Your task to perform on an android device: Open privacy settings Image 0: 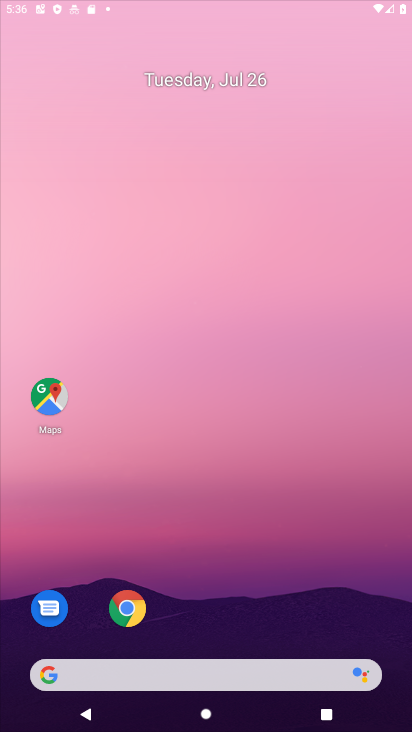
Step 0: press home button
Your task to perform on an android device: Open privacy settings Image 1: 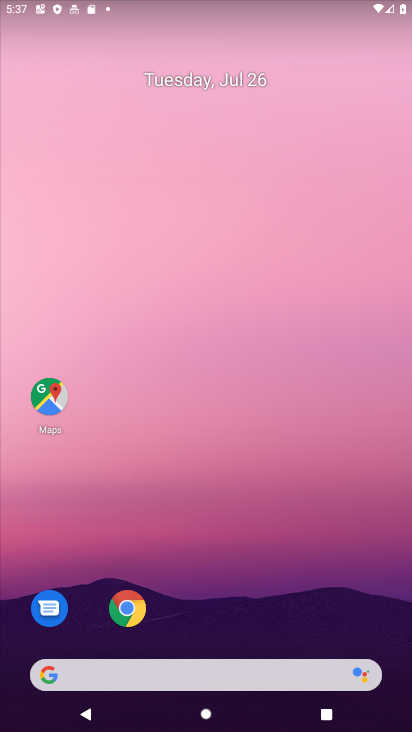
Step 1: drag from (279, 638) to (230, 77)
Your task to perform on an android device: Open privacy settings Image 2: 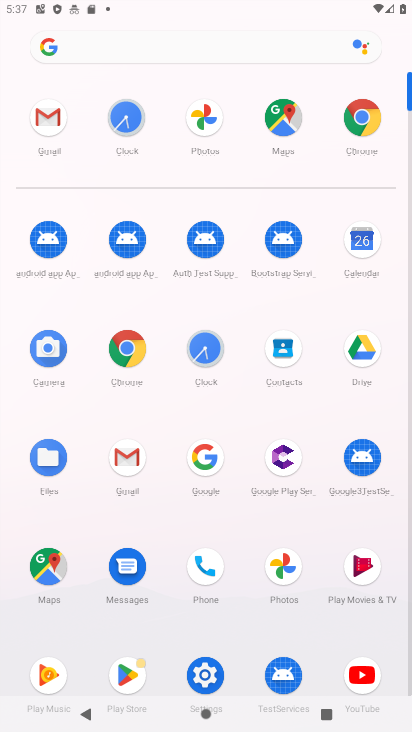
Step 2: click (208, 668)
Your task to perform on an android device: Open privacy settings Image 3: 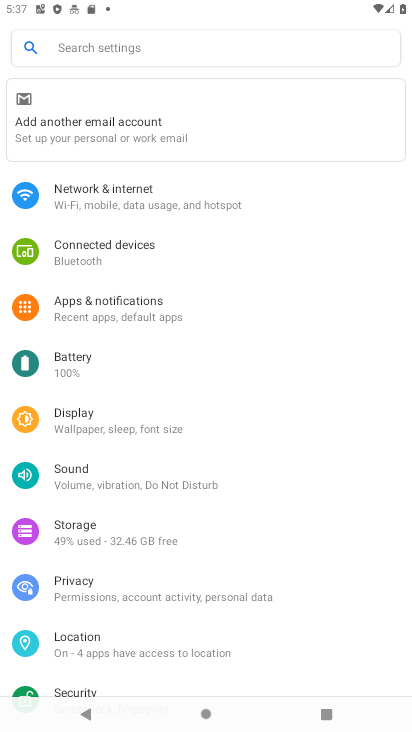
Step 3: click (77, 585)
Your task to perform on an android device: Open privacy settings Image 4: 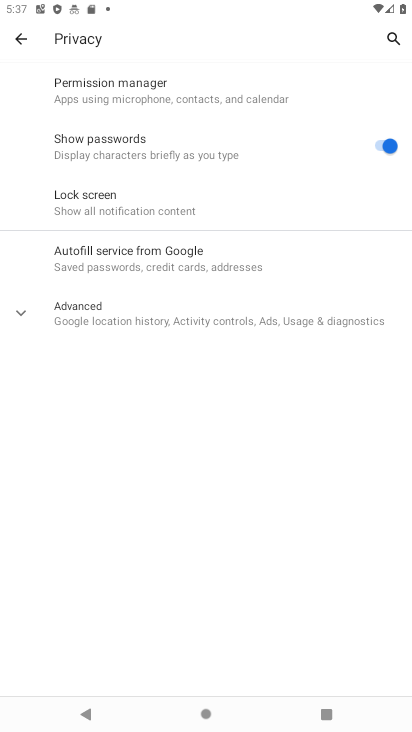
Step 4: task complete